Your task to perform on an android device: search for starred emails in the gmail app Image 0: 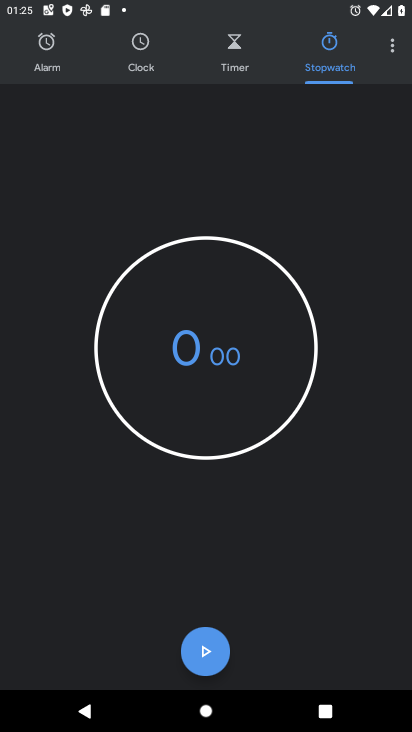
Step 0: press home button
Your task to perform on an android device: search for starred emails in the gmail app Image 1: 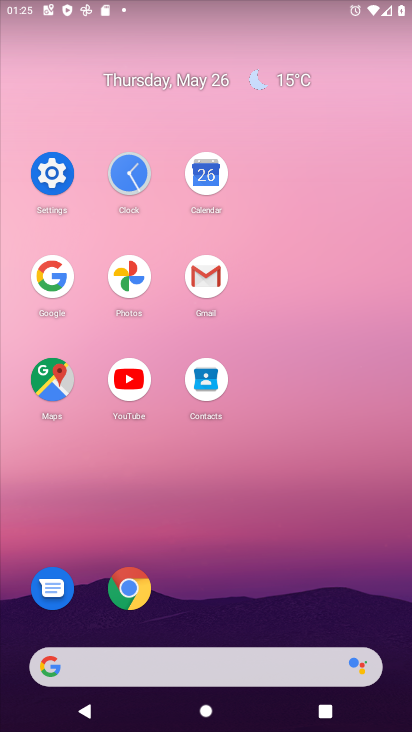
Step 1: click (218, 274)
Your task to perform on an android device: search for starred emails in the gmail app Image 2: 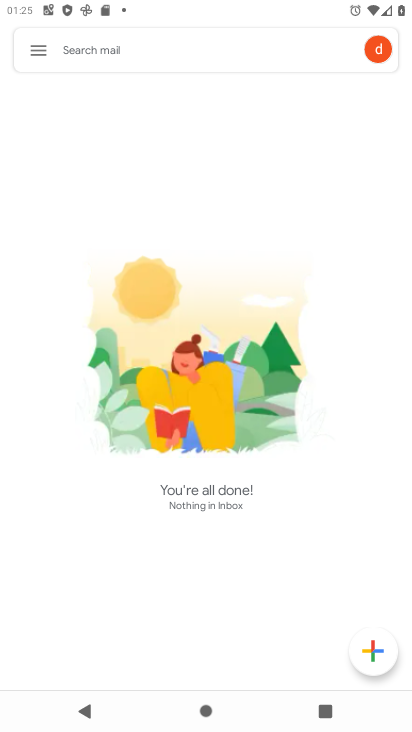
Step 2: click (47, 56)
Your task to perform on an android device: search for starred emails in the gmail app Image 3: 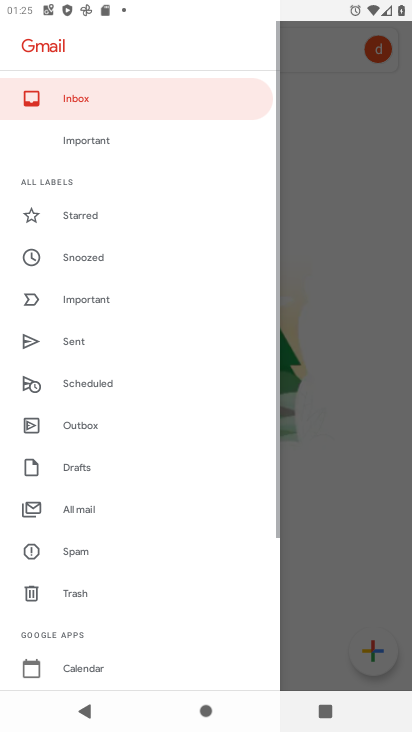
Step 3: drag from (160, 488) to (154, 178)
Your task to perform on an android device: search for starred emails in the gmail app Image 4: 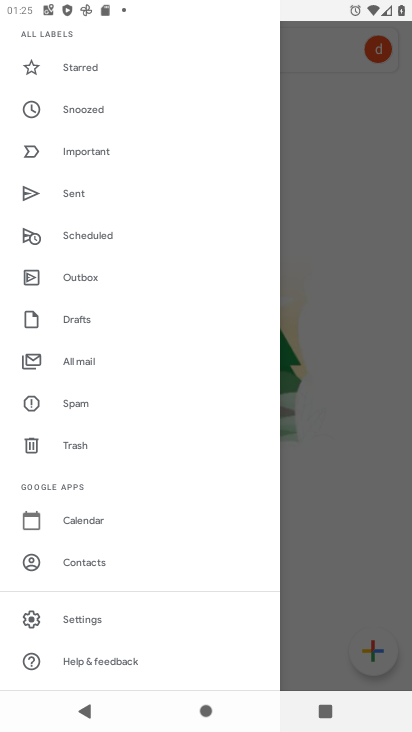
Step 4: click (108, 71)
Your task to perform on an android device: search for starred emails in the gmail app Image 5: 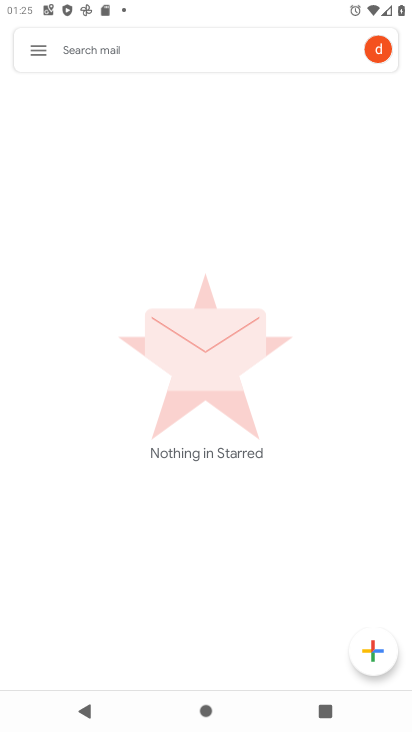
Step 5: task complete